Your task to perform on an android device: Open the calendar app, open the side menu, and click the "Day" option Image 0: 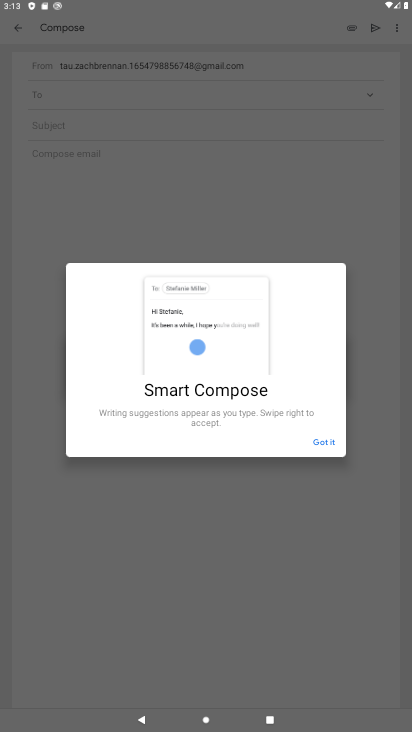
Step 0: click (331, 448)
Your task to perform on an android device: Open the calendar app, open the side menu, and click the "Day" option Image 1: 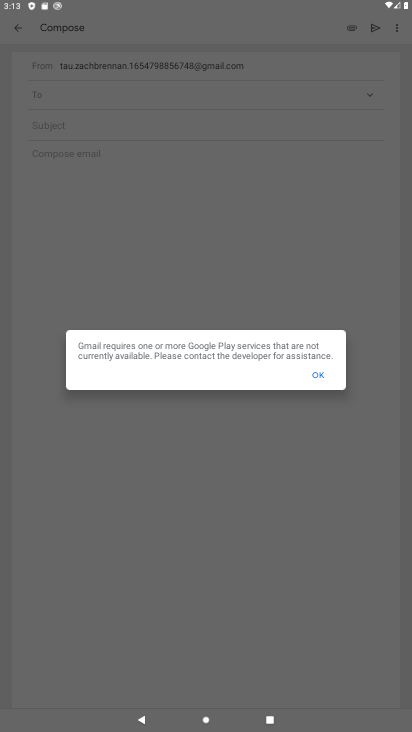
Step 1: click (323, 371)
Your task to perform on an android device: Open the calendar app, open the side menu, and click the "Day" option Image 2: 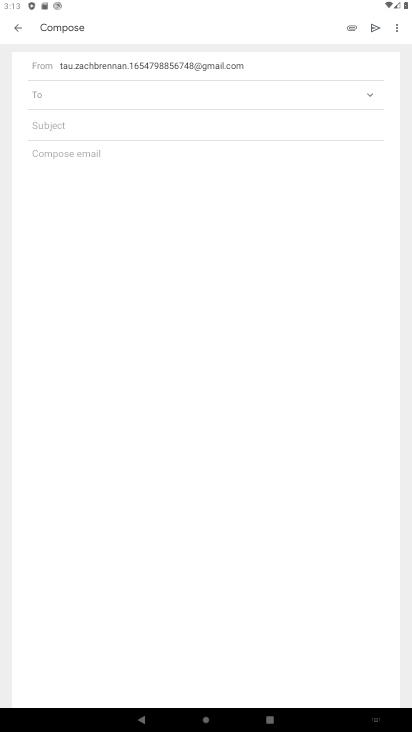
Step 2: press home button
Your task to perform on an android device: Open the calendar app, open the side menu, and click the "Day" option Image 3: 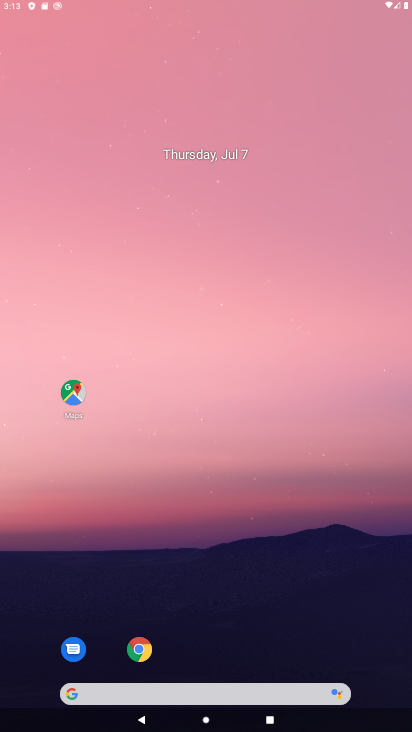
Step 3: drag from (209, 657) to (329, 175)
Your task to perform on an android device: Open the calendar app, open the side menu, and click the "Day" option Image 4: 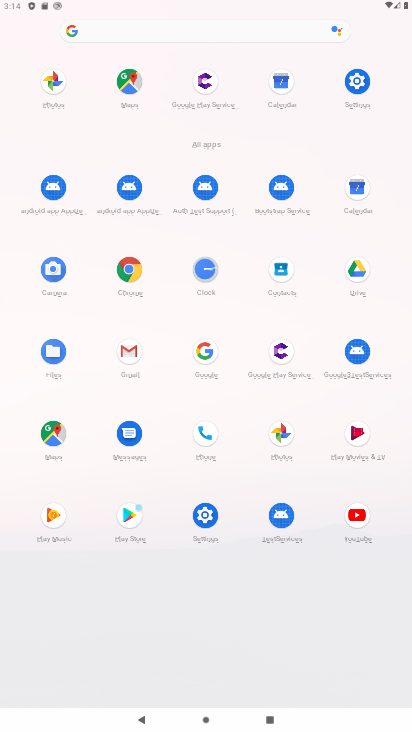
Step 4: click (361, 186)
Your task to perform on an android device: Open the calendar app, open the side menu, and click the "Day" option Image 5: 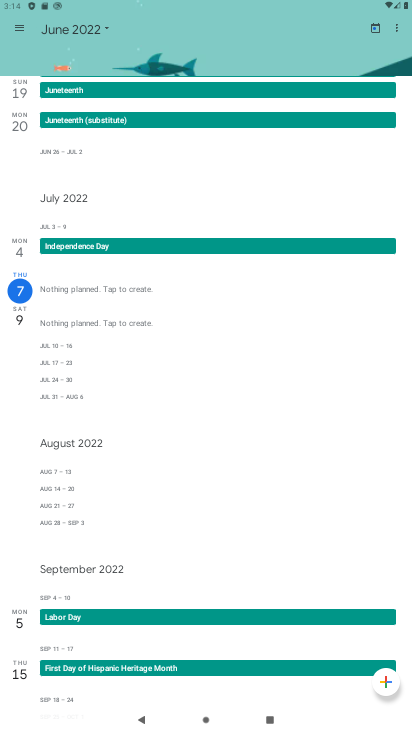
Step 5: click (360, 184)
Your task to perform on an android device: Open the calendar app, open the side menu, and click the "Day" option Image 6: 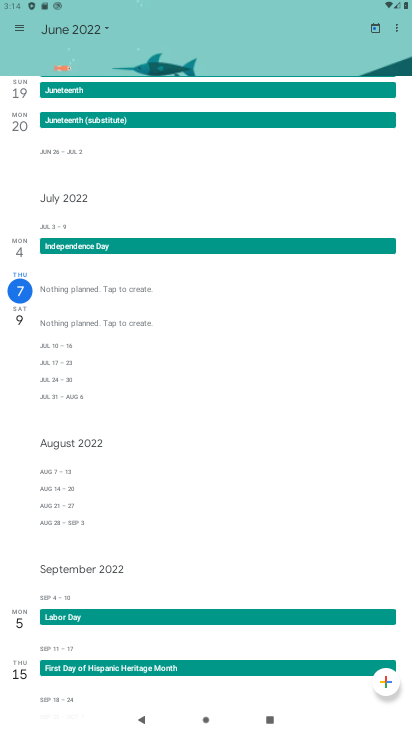
Step 6: click (33, 10)
Your task to perform on an android device: Open the calendar app, open the side menu, and click the "Day" option Image 7: 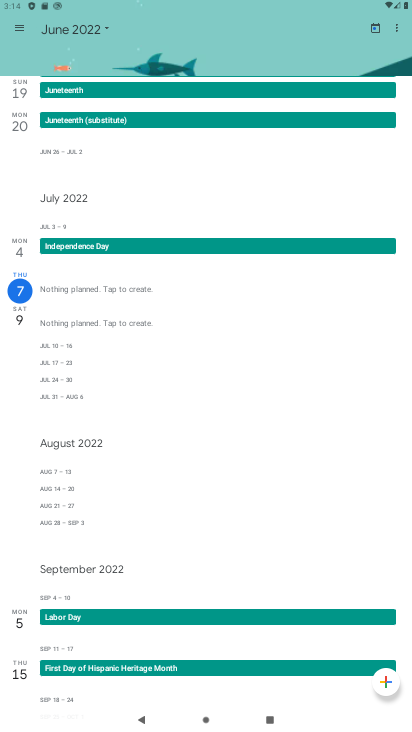
Step 7: drag from (190, 542) to (212, 340)
Your task to perform on an android device: Open the calendar app, open the side menu, and click the "Day" option Image 8: 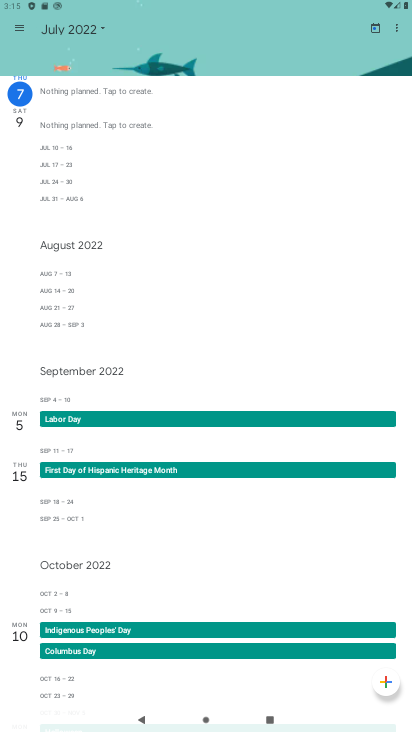
Step 8: drag from (161, 603) to (238, 365)
Your task to perform on an android device: Open the calendar app, open the side menu, and click the "Day" option Image 9: 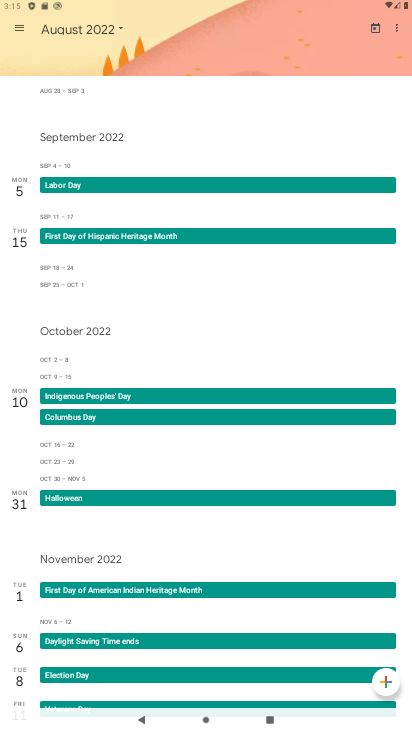
Step 9: drag from (195, 577) to (403, 273)
Your task to perform on an android device: Open the calendar app, open the side menu, and click the "Day" option Image 10: 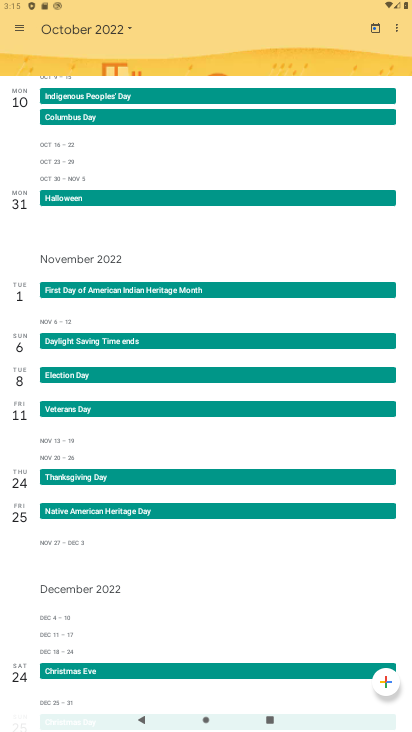
Step 10: click (17, 32)
Your task to perform on an android device: Open the calendar app, open the side menu, and click the "Day" option Image 11: 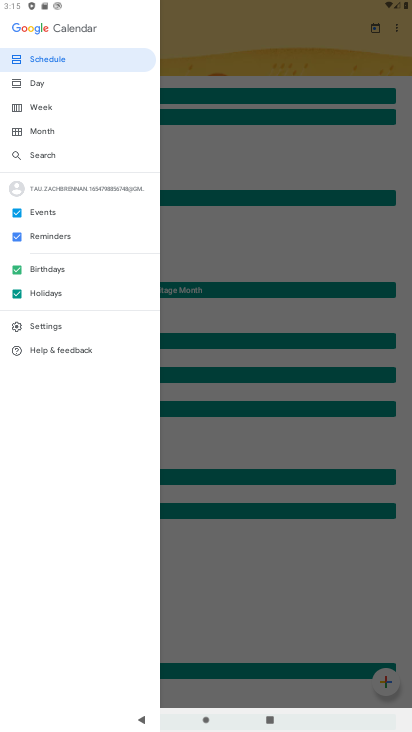
Step 11: click (53, 89)
Your task to perform on an android device: Open the calendar app, open the side menu, and click the "Day" option Image 12: 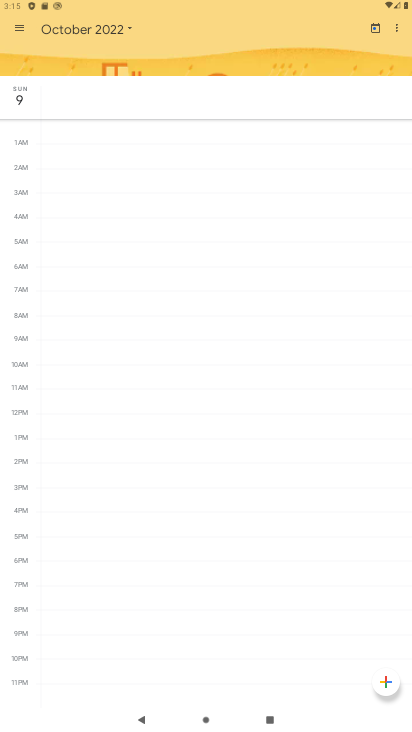
Step 12: task complete